Your task to perform on an android device: open chrome and create a bookmark for the current page Image 0: 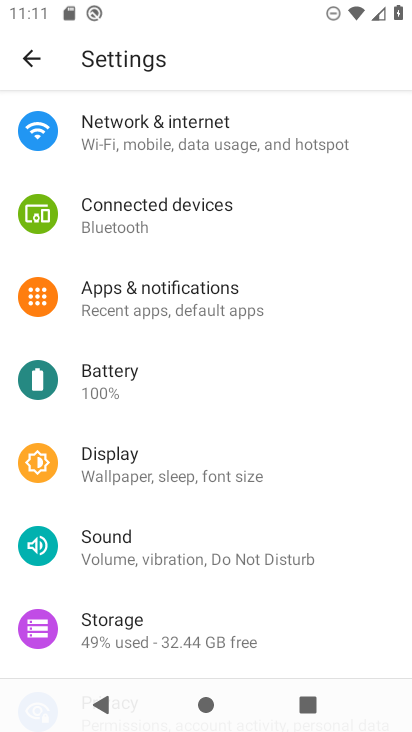
Step 0: press home button
Your task to perform on an android device: open chrome and create a bookmark for the current page Image 1: 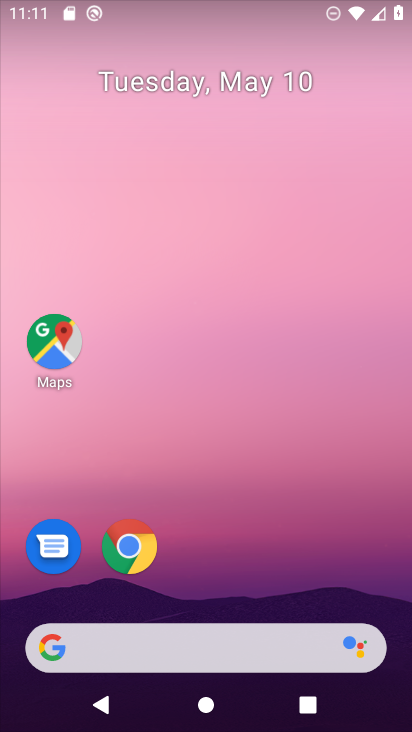
Step 1: click (124, 545)
Your task to perform on an android device: open chrome and create a bookmark for the current page Image 2: 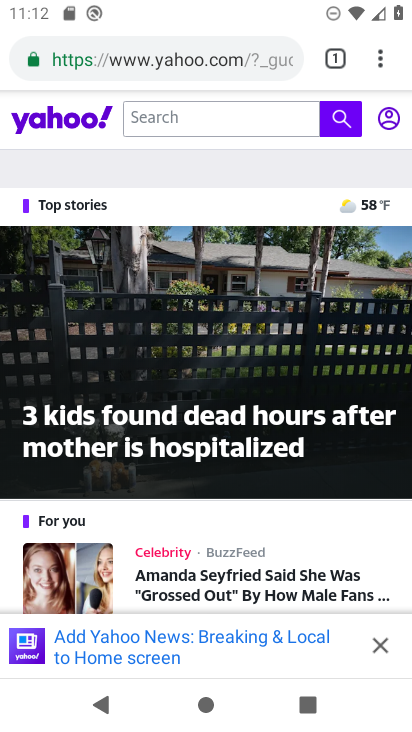
Step 2: click (383, 47)
Your task to perform on an android device: open chrome and create a bookmark for the current page Image 3: 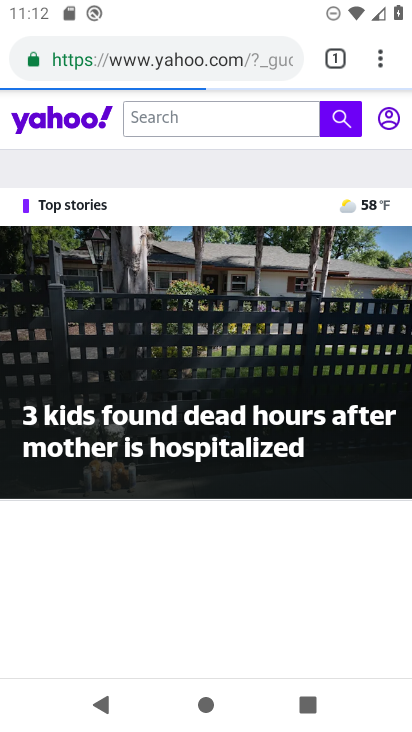
Step 3: task complete